Your task to perform on an android device: check data usage Image 0: 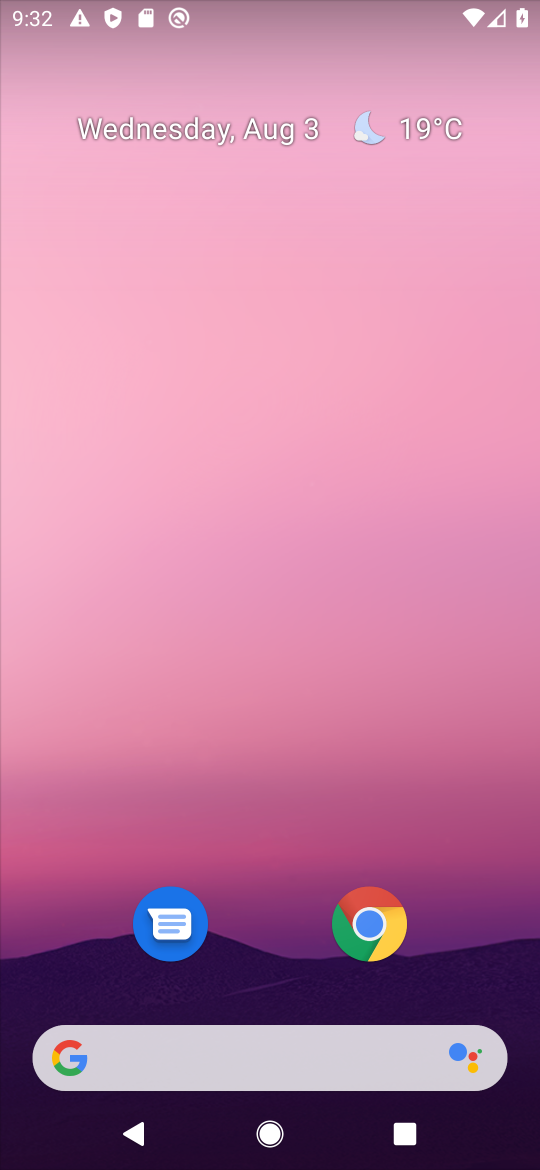
Step 0: press home button
Your task to perform on an android device: check data usage Image 1: 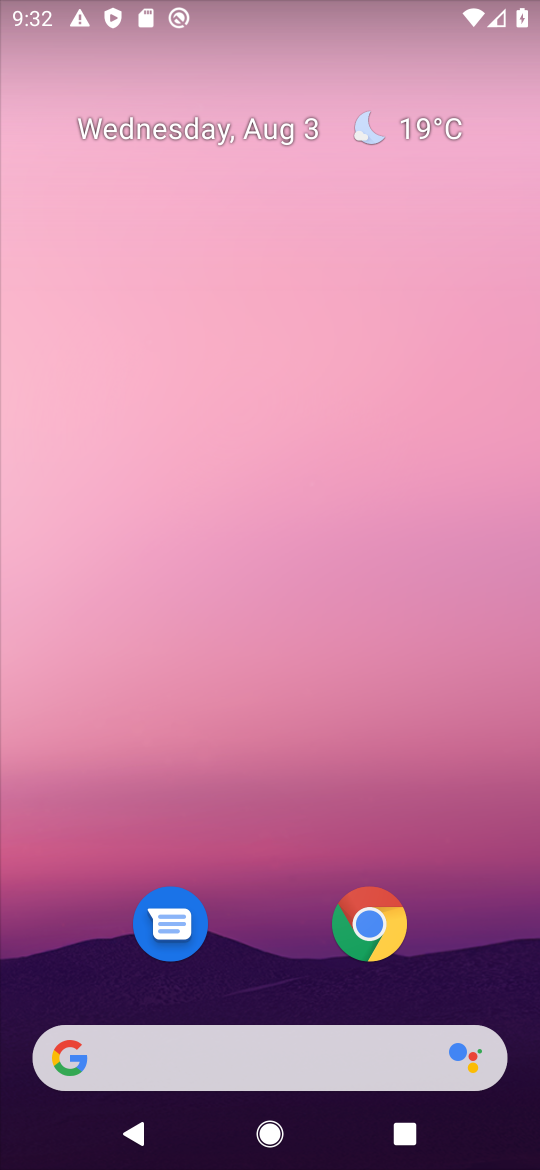
Step 1: drag from (294, 979) to (342, 50)
Your task to perform on an android device: check data usage Image 2: 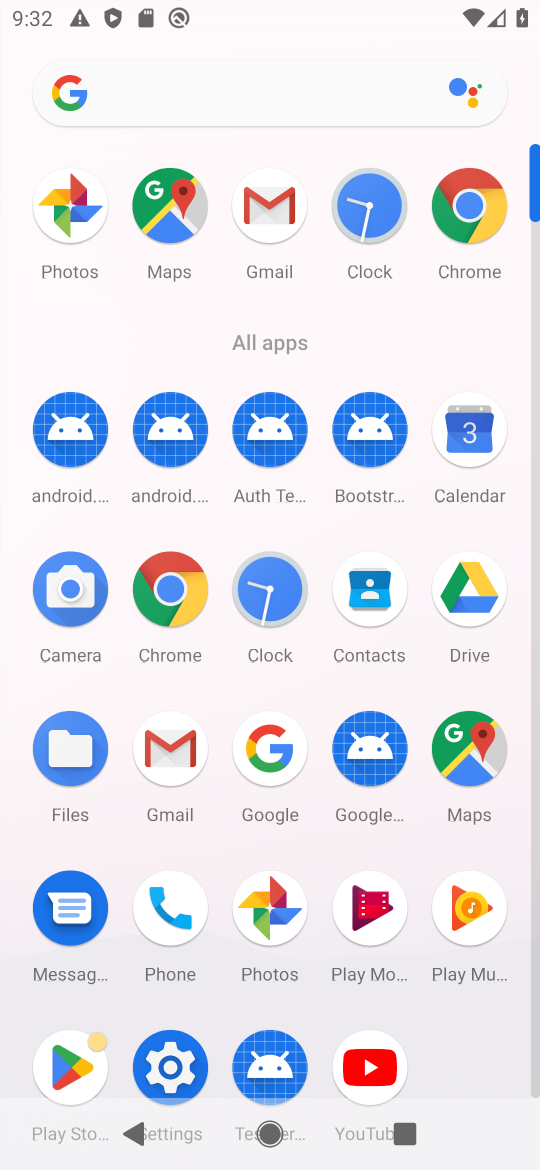
Step 2: click (168, 1058)
Your task to perform on an android device: check data usage Image 3: 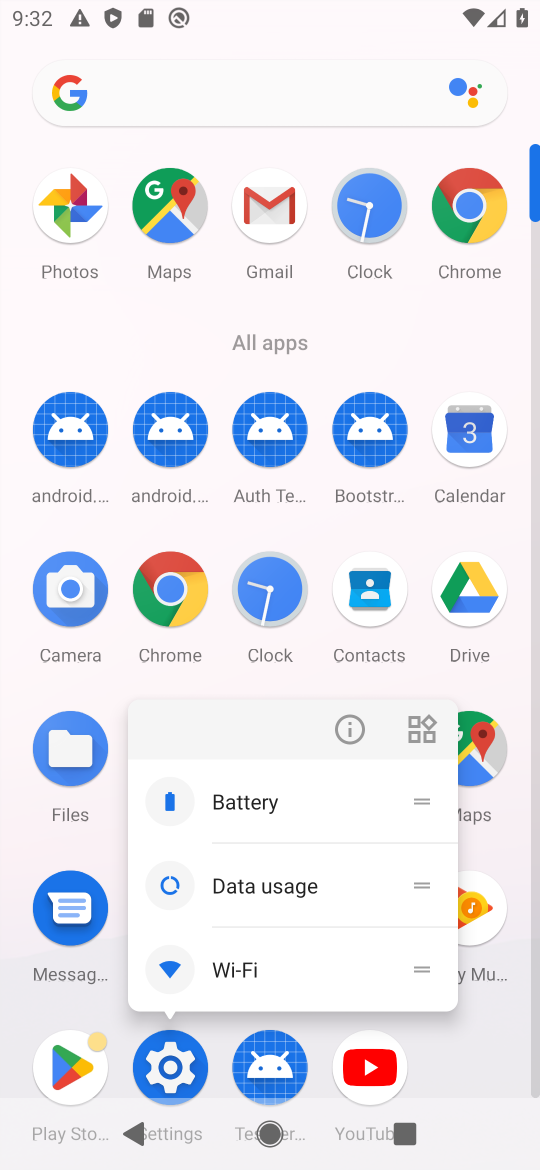
Step 3: click (163, 1042)
Your task to perform on an android device: check data usage Image 4: 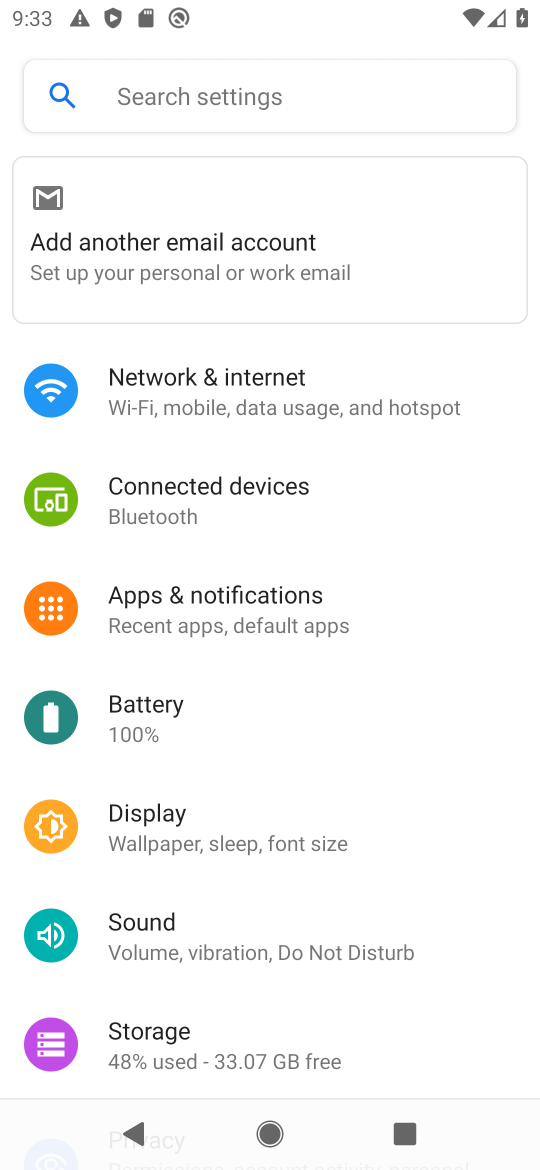
Step 4: click (174, 375)
Your task to perform on an android device: check data usage Image 5: 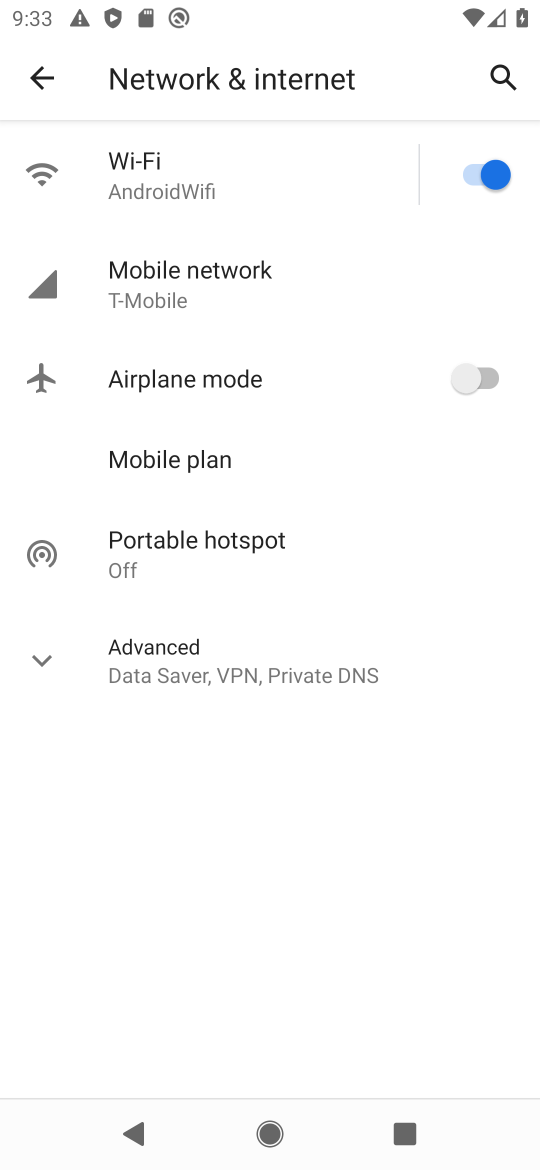
Step 5: click (185, 289)
Your task to perform on an android device: check data usage Image 6: 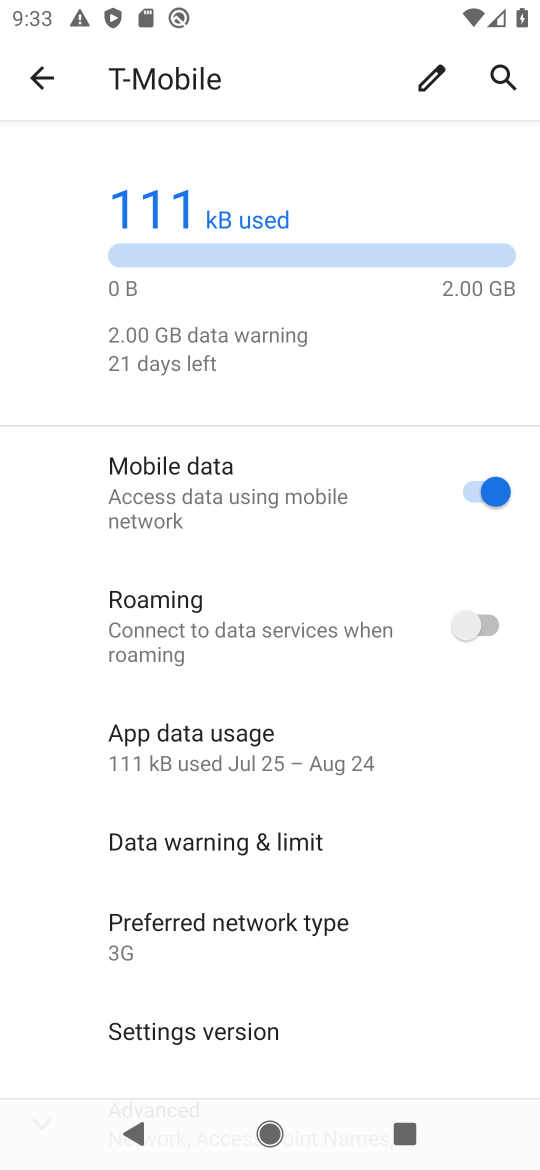
Step 6: click (220, 735)
Your task to perform on an android device: check data usage Image 7: 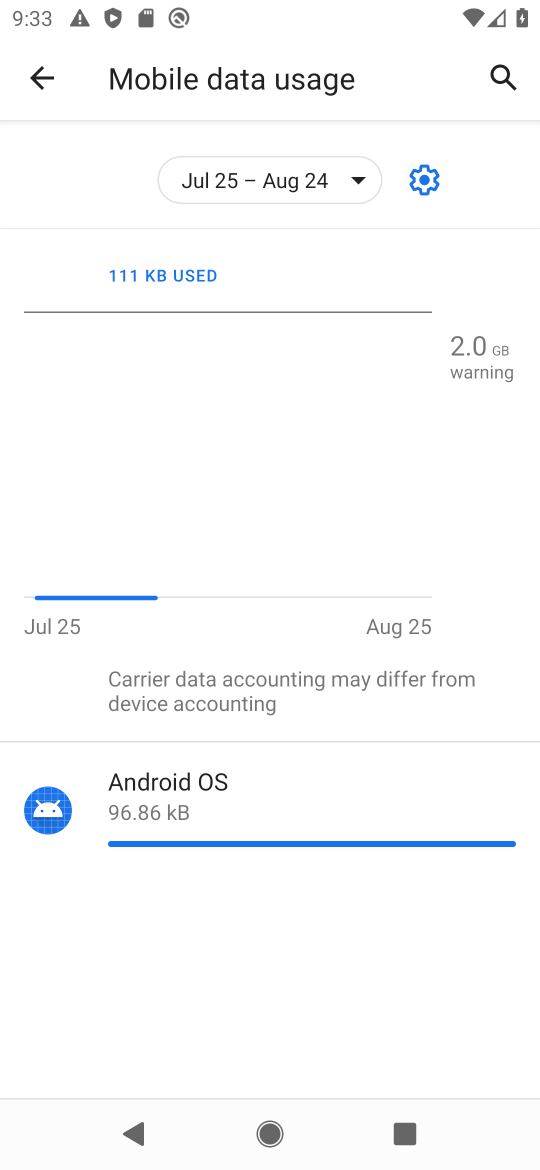
Step 7: task complete